Your task to perform on an android device: When is my next appointment? Image 0: 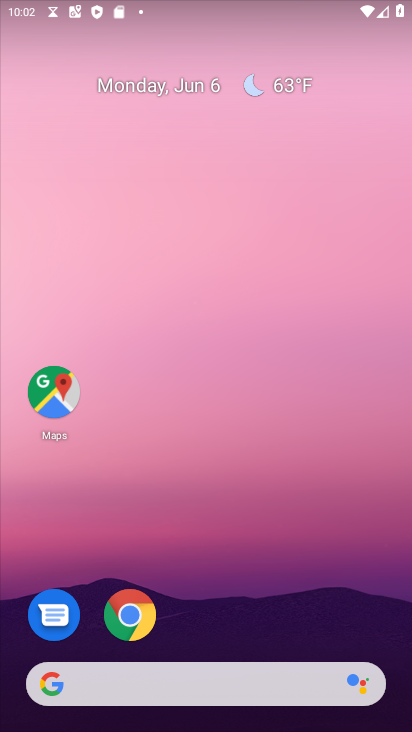
Step 0: drag from (213, 641) to (227, 48)
Your task to perform on an android device: When is my next appointment? Image 1: 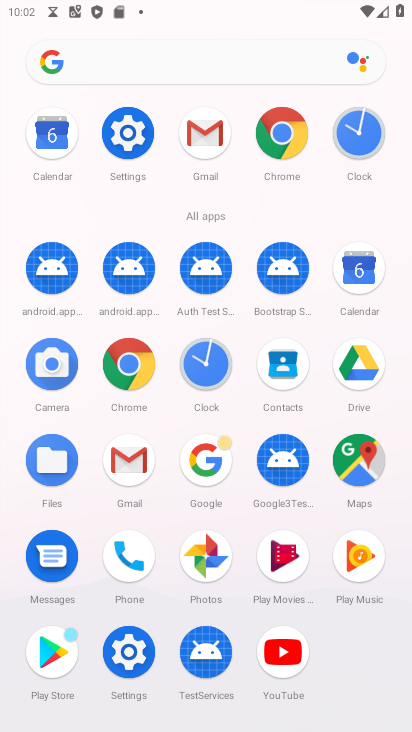
Step 1: click (357, 261)
Your task to perform on an android device: When is my next appointment? Image 2: 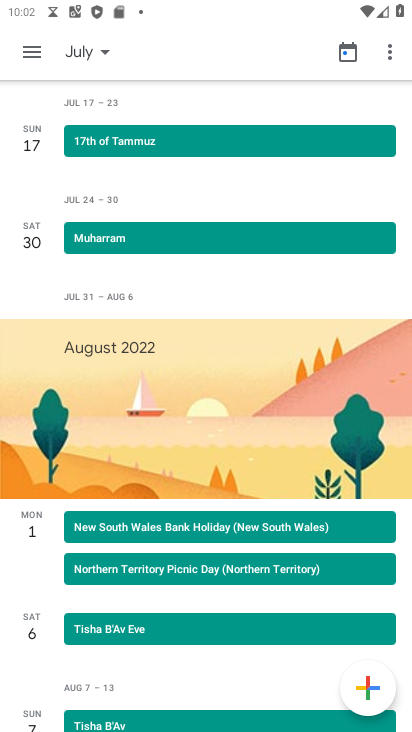
Step 2: click (106, 44)
Your task to perform on an android device: When is my next appointment? Image 3: 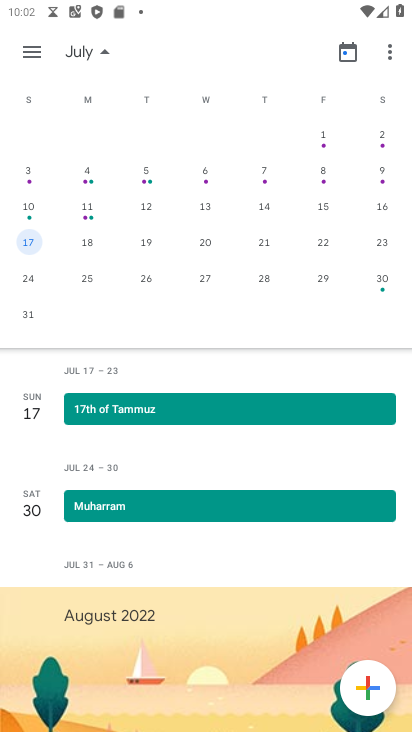
Step 3: drag from (46, 208) to (407, 233)
Your task to perform on an android device: When is my next appointment? Image 4: 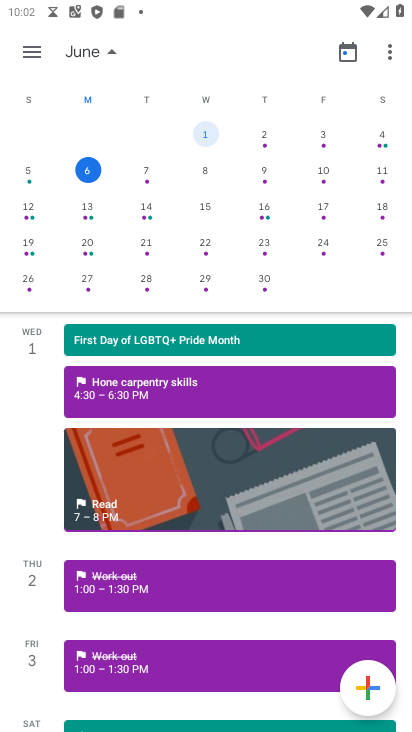
Step 4: click (88, 168)
Your task to perform on an android device: When is my next appointment? Image 5: 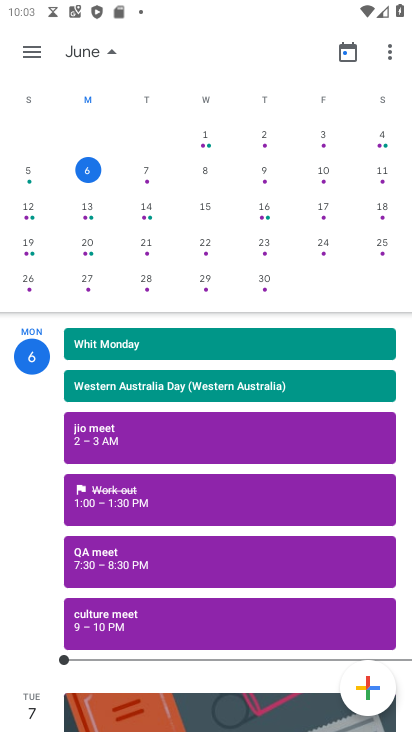
Step 5: click (106, 52)
Your task to perform on an android device: When is my next appointment? Image 6: 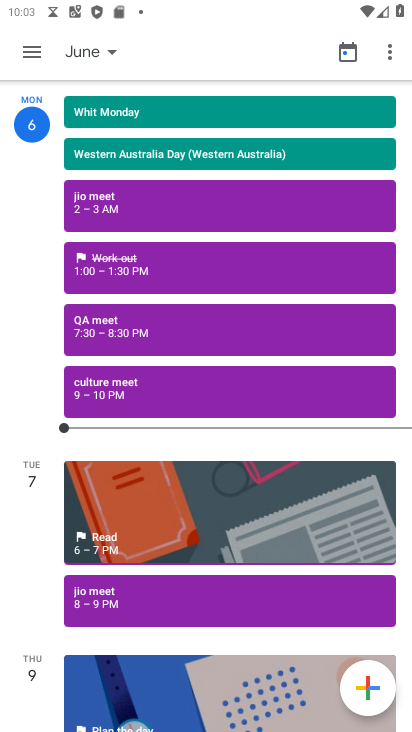
Step 6: drag from (46, 485) to (76, 209)
Your task to perform on an android device: When is my next appointment? Image 7: 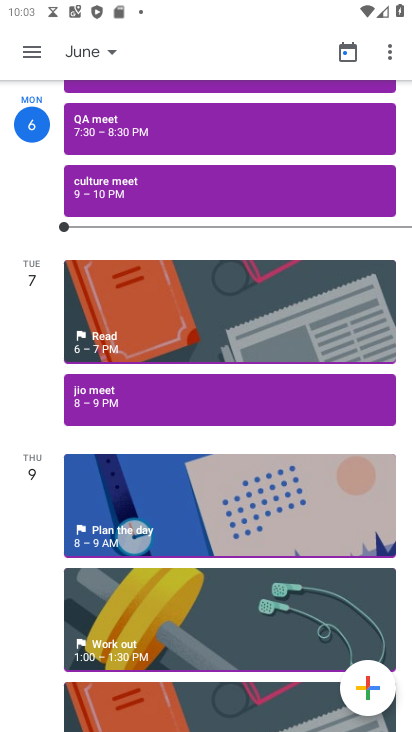
Step 7: drag from (30, 524) to (68, 290)
Your task to perform on an android device: When is my next appointment? Image 8: 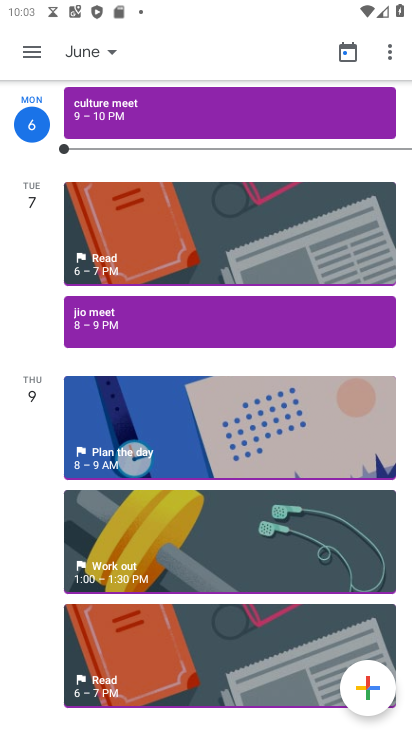
Step 8: click (77, 236)
Your task to perform on an android device: When is my next appointment? Image 9: 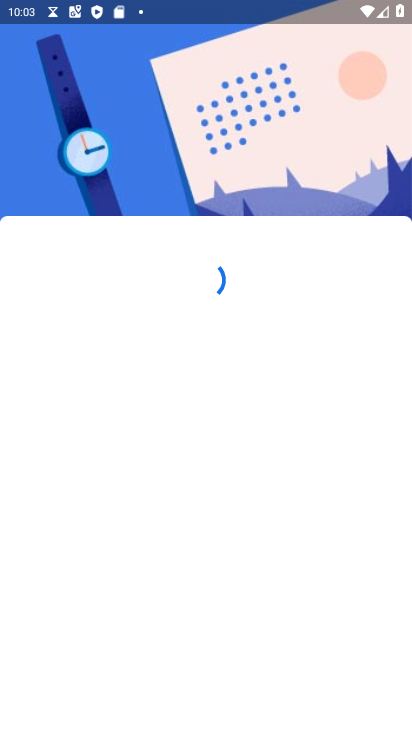
Step 9: task complete